Your task to perform on an android device: turn on javascript in the chrome app Image 0: 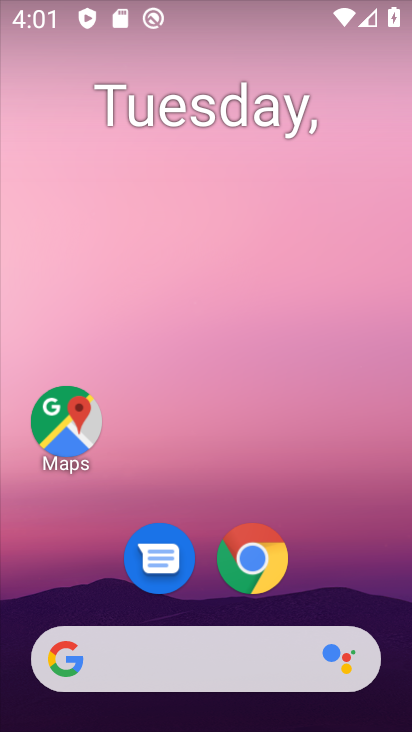
Step 0: click (266, 563)
Your task to perform on an android device: turn on javascript in the chrome app Image 1: 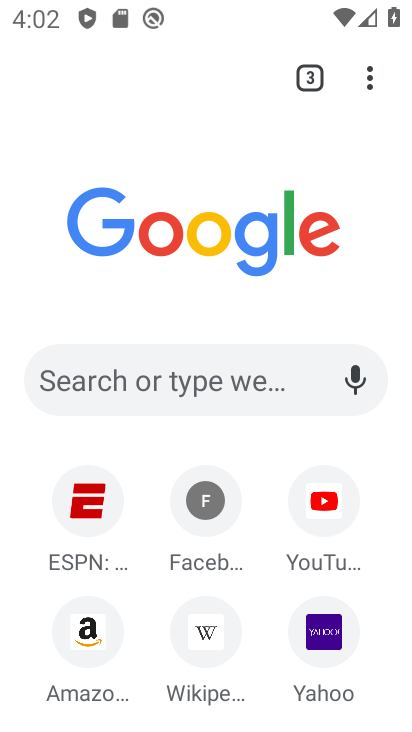
Step 1: click (376, 85)
Your task to perform on an android device: turn on javascript in the chrome app Image 2: 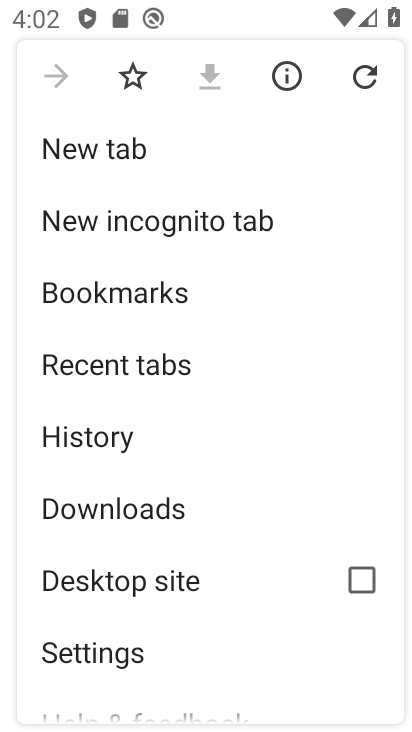
Step 2: click (187, 663)
Your task to perform on an android device: turn on javascript in the chrome app Image 3: 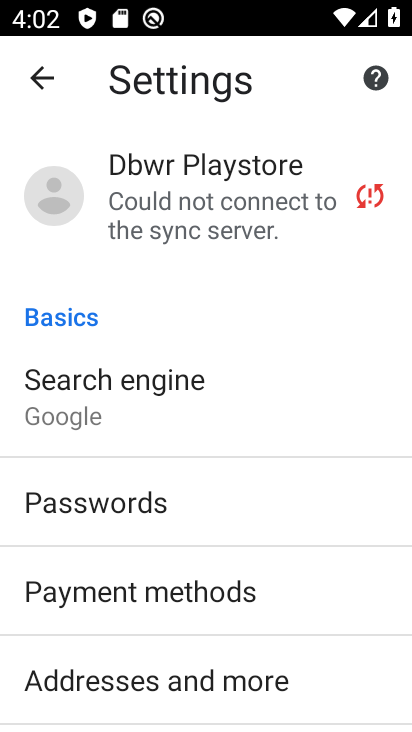
Step 3: drag from (205, 711) to (207, 193)
Your task to perform on an android device: turn on javascript in the chrome app Image 4: 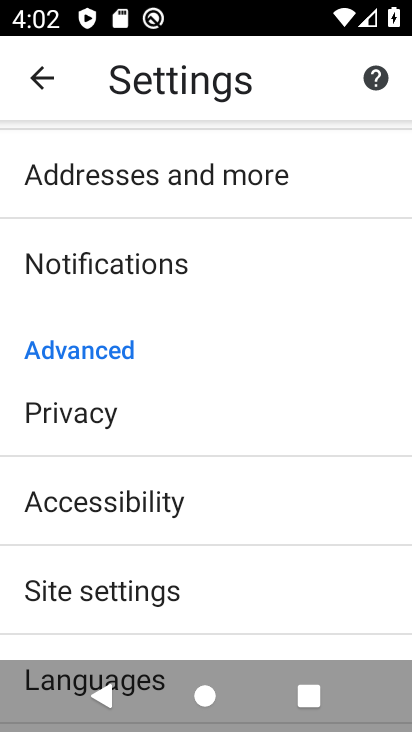
Step 4: click (210, 581)
Your task to perform on an android device: turn on javascript in the chrome app Image 5: 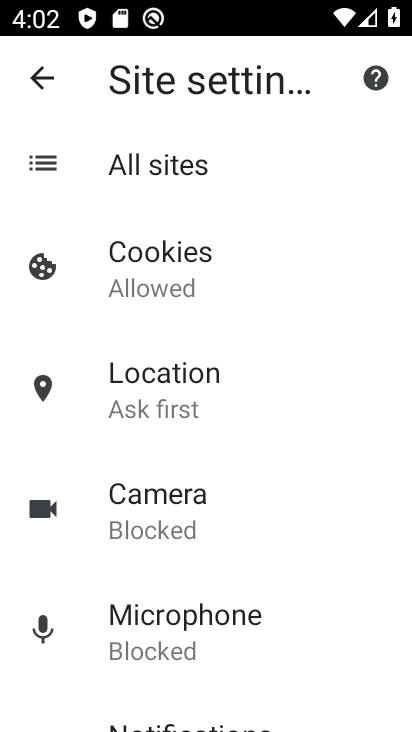
Step 5: drag from (245, 681) to (244, 344)
Your task to perform on an android device: turn on javascript in the chrome app Image 6: 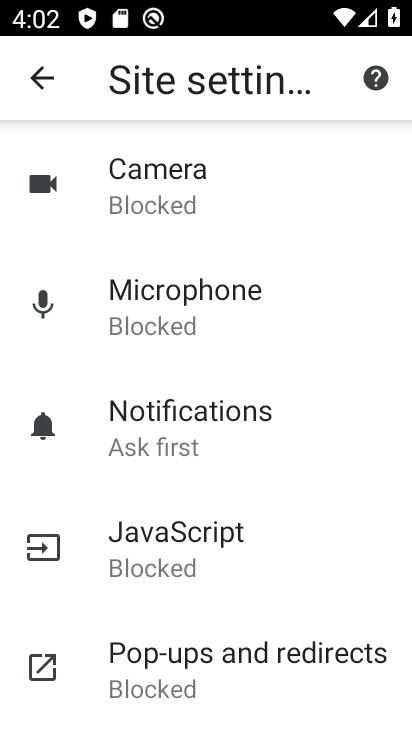
Step 6: click (244, 556)
Your task to perform on an android device: turn on javascript in the chrome app Image 7: 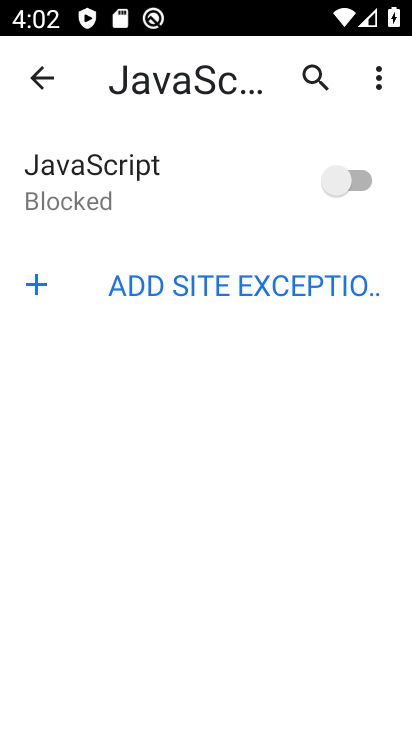
Step 7: click (365, 185)
Your task to perform on an android device: turn on javascript in the chrome app Image 8: 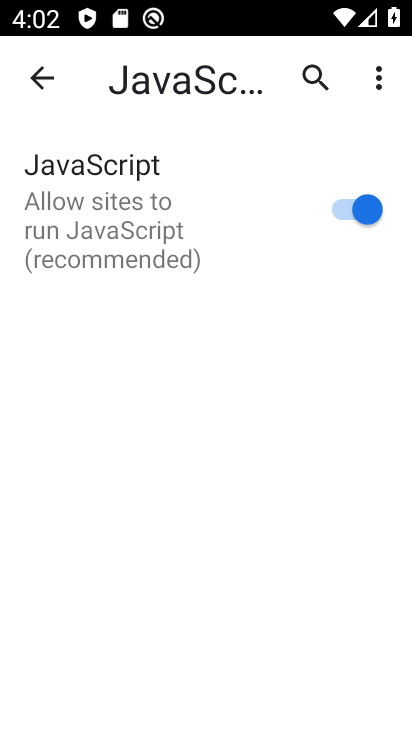
Step 8: task complete